Your task to perform on an android device: What's the weather going to be this weekend? Image 0: 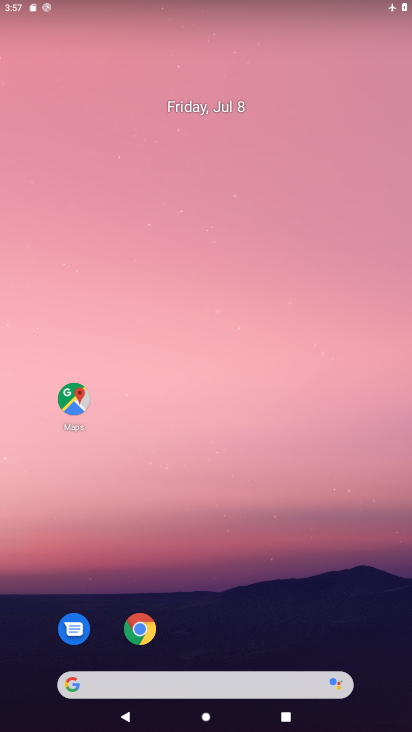
Step 0: click (143, 627)
Your task to perform on an android device: What's the weather going to be this weekend? Image 1: 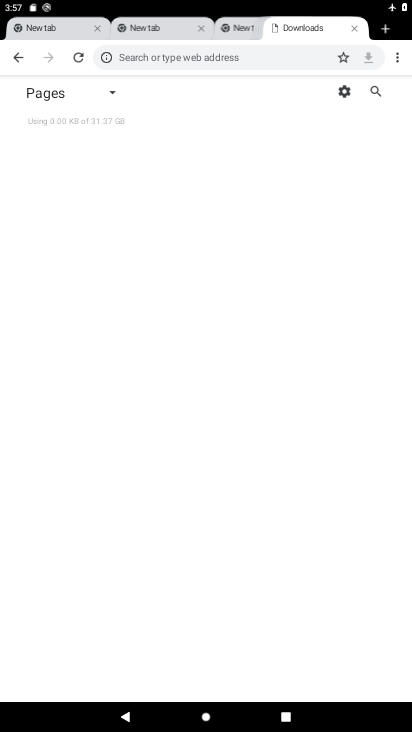
Step 1: click (156, 29)
Your task to perform on an android device: What's the weather going to be this weekend? Image 2: 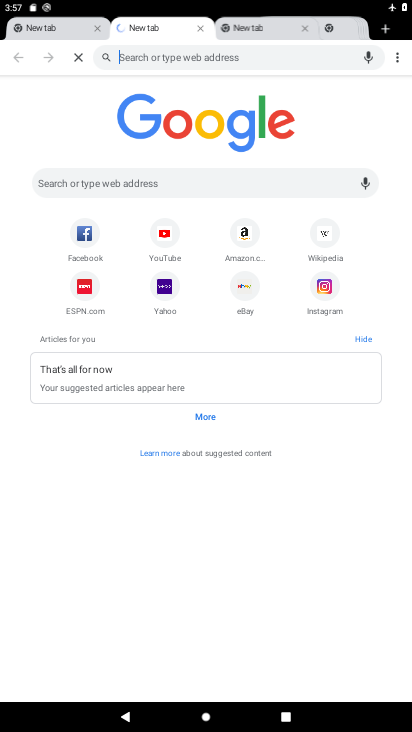
Step 2: click (156, 29)
Your task to perform on an android device: What's the weather going to be this weekend? Image 3: 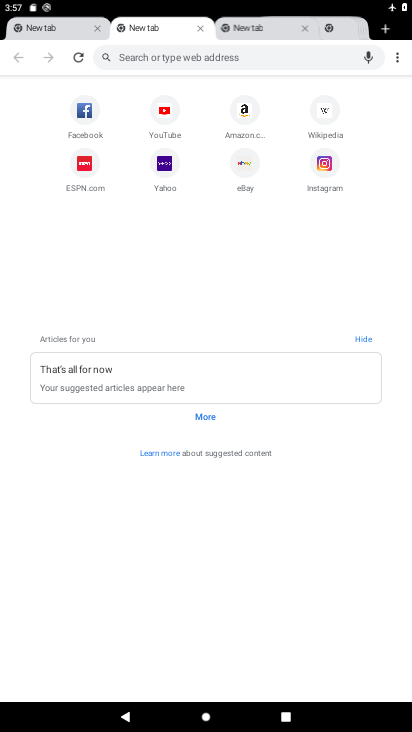
Step 3: click (171, 52)
Your task to perform on an android device: What's the weather going to be this weekend? Image 4: 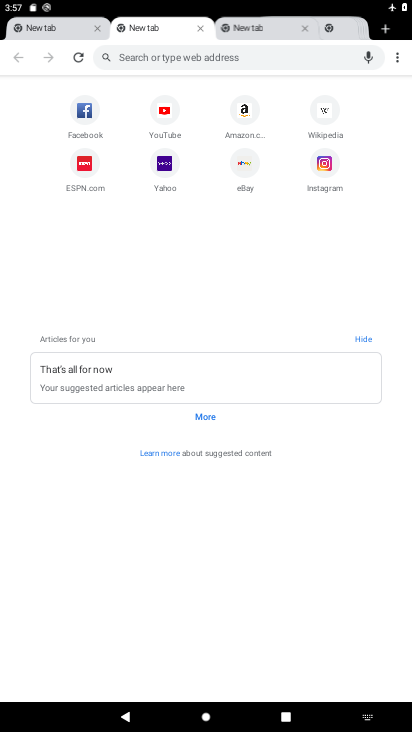
Step 4: type "What's the weather going to be this weekend "
Your task to perform on an android device: What's the weather going to be this weekend? Image 5: 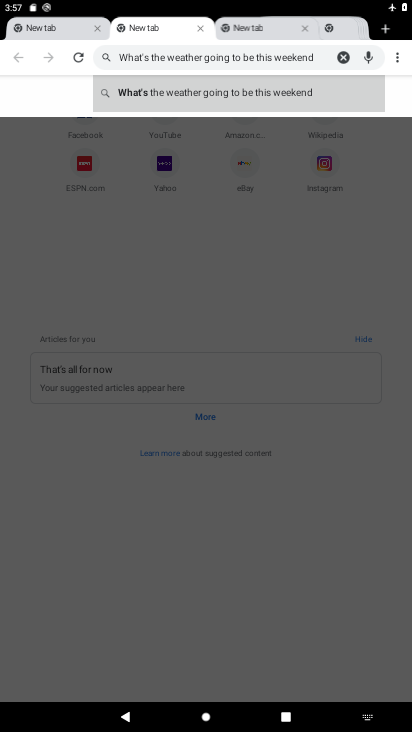
Step 5: click (199, 85)
Your task to perform on an android device: What's the weather going to be this weekend? Image 6: 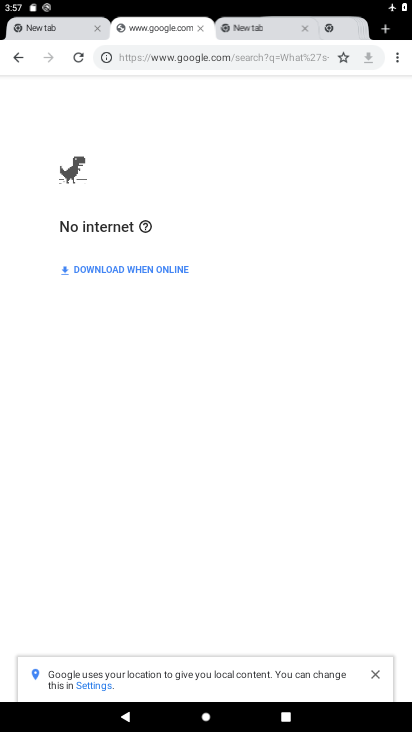
Step 6: task complete